Your task to perform on an android device: turn off wifi Image 0: 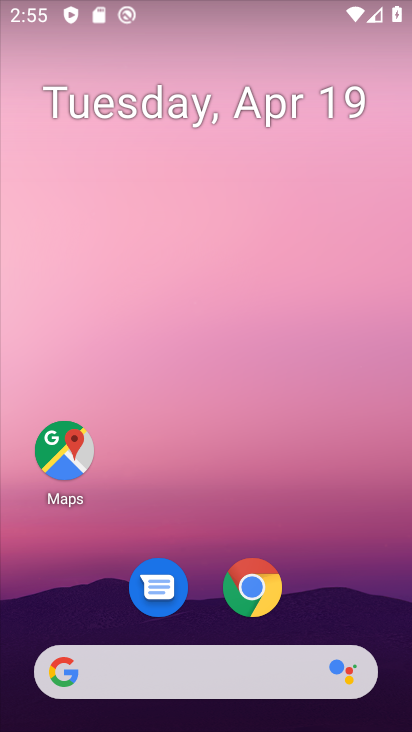
Step 0: drag from (390, 609) to (213, 94)
Your task to perform on an android device: turn off wifi Image 1: 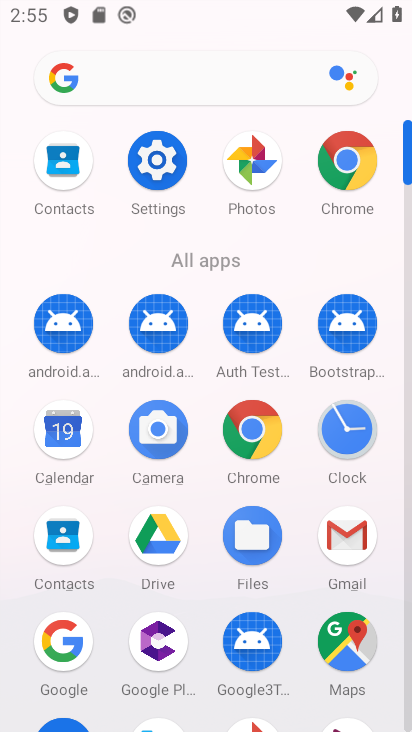
Step 1: drag from (170, 3) to (202, 418)
Your task to perform on an android device: turn off wifi Image 2: 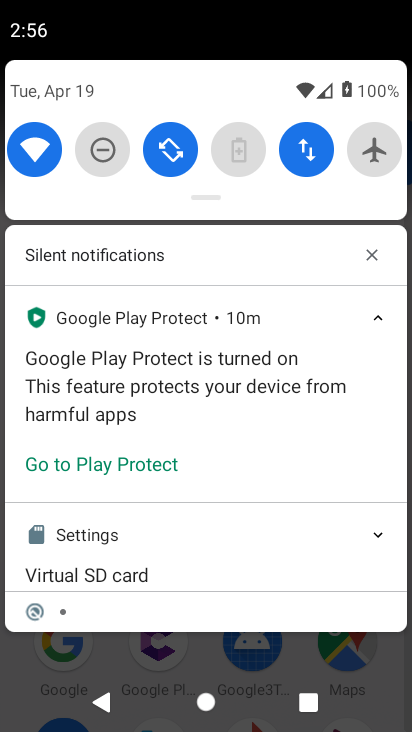
Step 2: click (34, 141)
Your task to perform on an android device: turn off wifi Image 3: 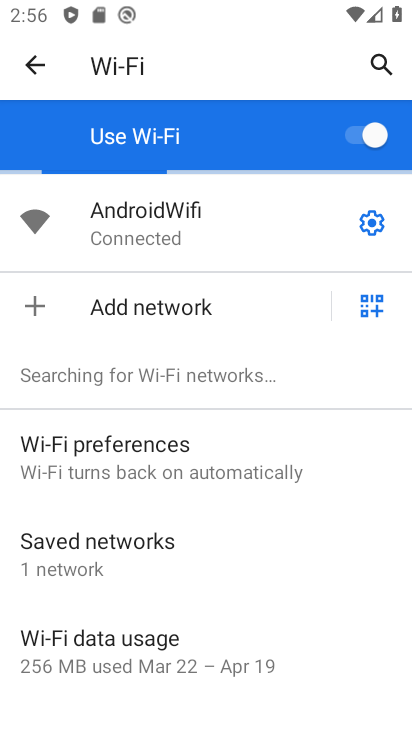
Step 3: click (361, 128)
Your task to perform on an android device: turn off wifi Image 4: 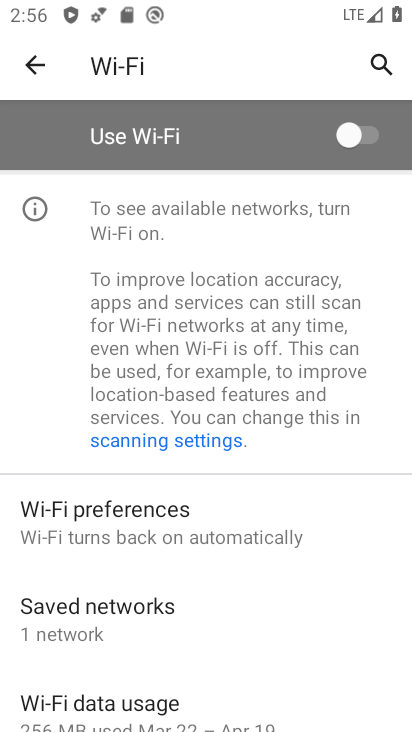
Step 4: task complete